Your task to perform on an android device: Search for razer nari on ebay.com, select the first entry, add it to the cart, then select checkout. Image 0: 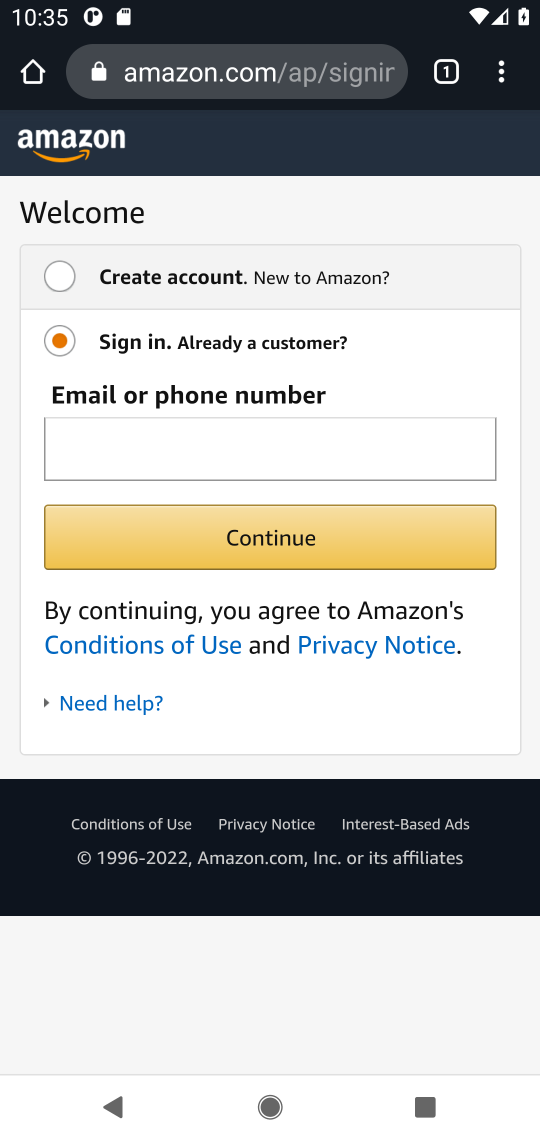
Step 0: press home button
Your task to perform on an android device: Search for razer nari on ebay.com, select the first entry, add it to the cart, then select checkout. Image 1: 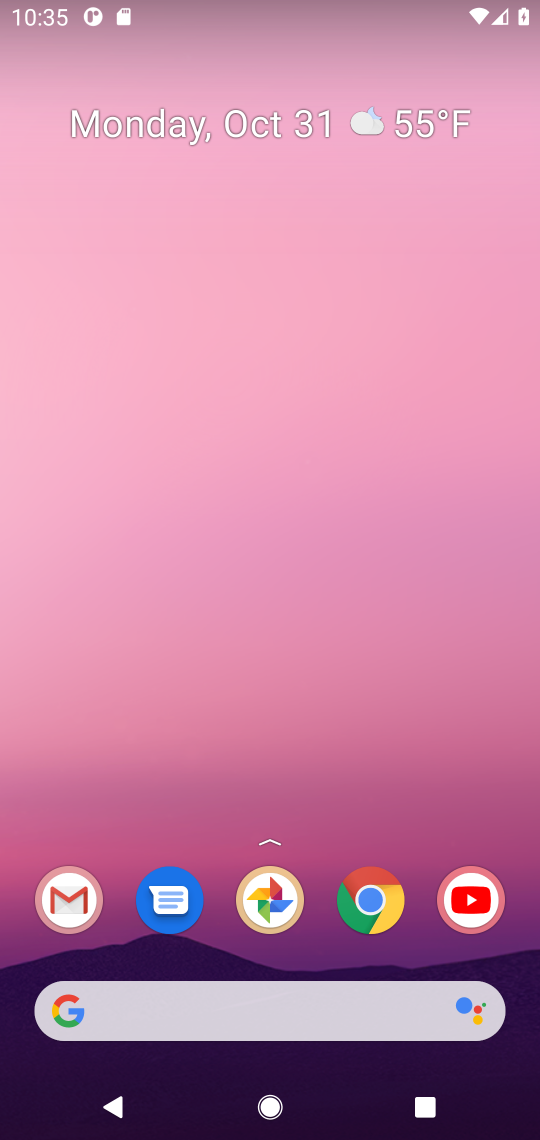
Step 1: click (366, 900)
Your task to perform on an android device: Search for razer nari on ebay.com, select the first entry, add it to the cart, then select checkout. Image 2: 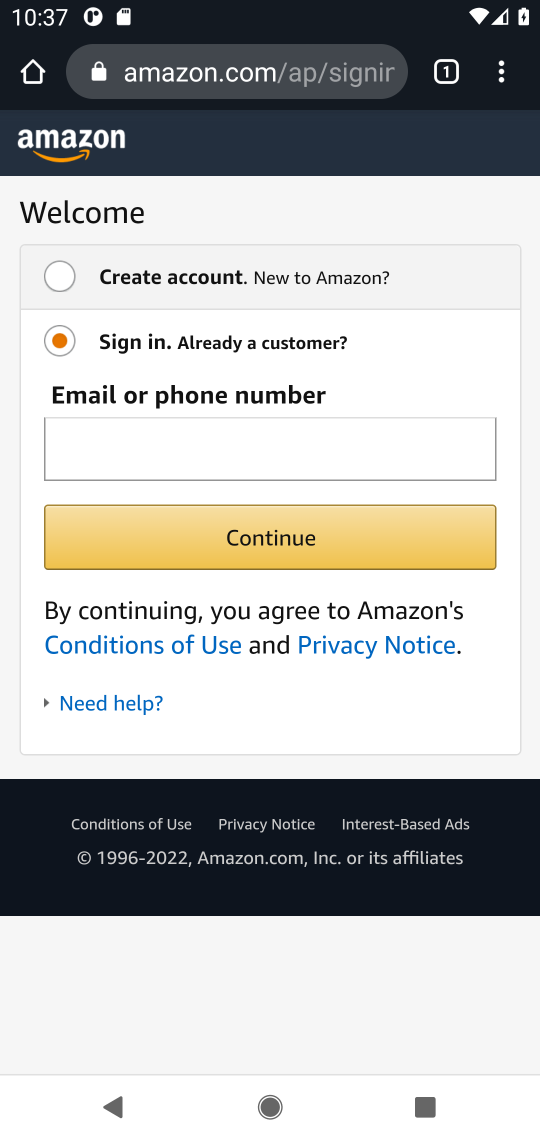
Step 2: click (236, 82)
Your task to perform on an android device: Search for razer nari on ebay.com, select the first entry, add it to the cart, then select checkout. Image 3: 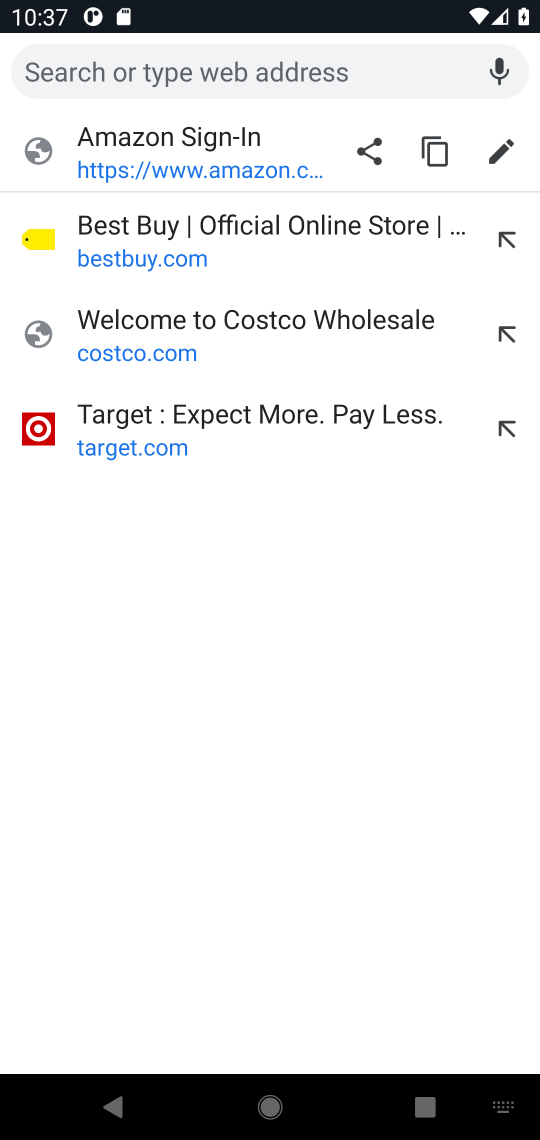
Step 3: type "ebay.com"
Your task to perform on an android device: Search for razer nari on ebay.com, select the first entry, add it to the cart, then select checkout. Image 4: 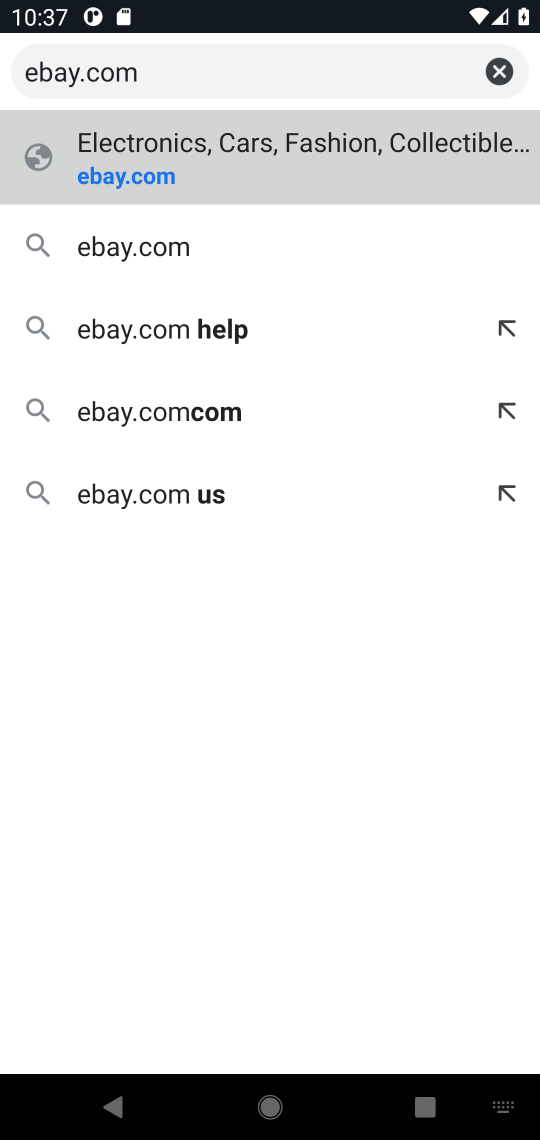
Step 4: click (80, 177)
Your task to perform on an android device: Search for razer nari on ebay.com, select the first entry, add it to the cart, then select checkout. Image 5: 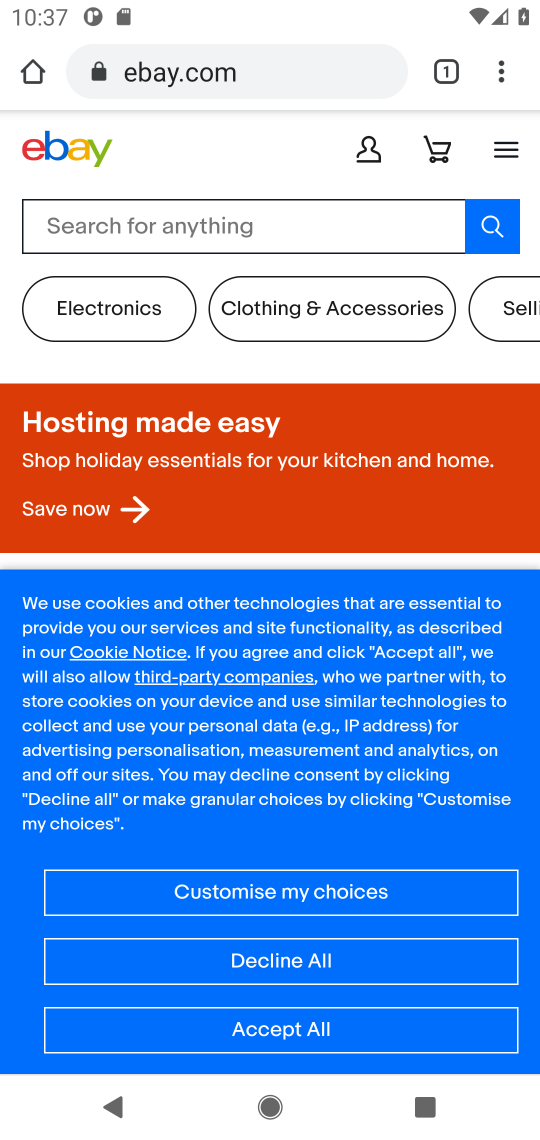
Step 5: click (150, 238)
Your task to perform on an android device: Search for razer nari on ebay.com, select the first entry, add it to the cart, then select checkout. Image 6: 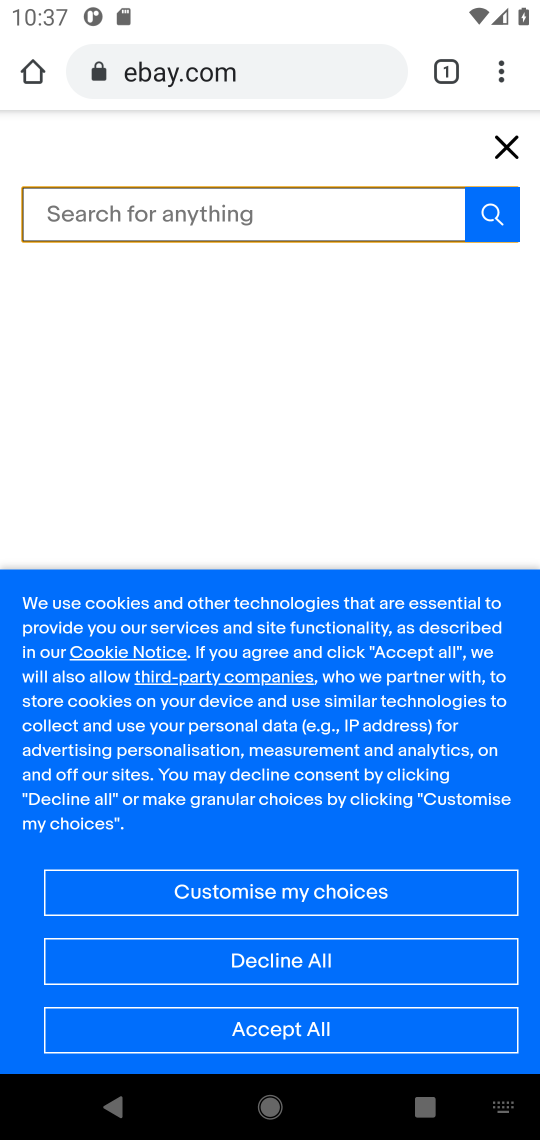
Step 6: type "razer nari "
Your task to perform on an android device: Search for razer nari on ebay.com, select the first entry, add it to the cart, then select checkout. Image 7: 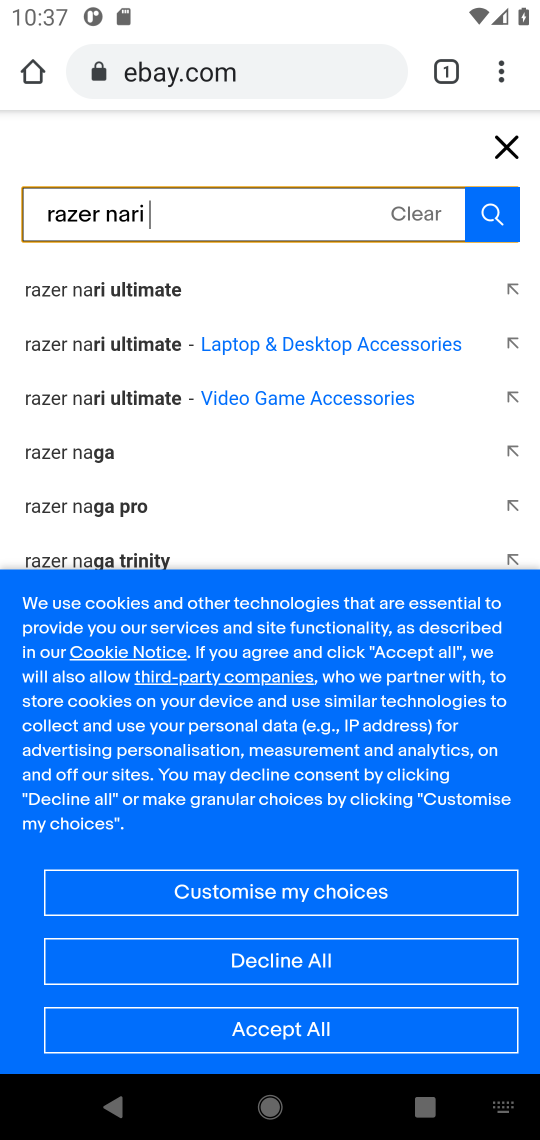
Step 7: click (134, 294)
Your task to perform on an android device: Search for razer nari on ebay.com, select the first entry, add it to the cart, then select checkout. Image 8: 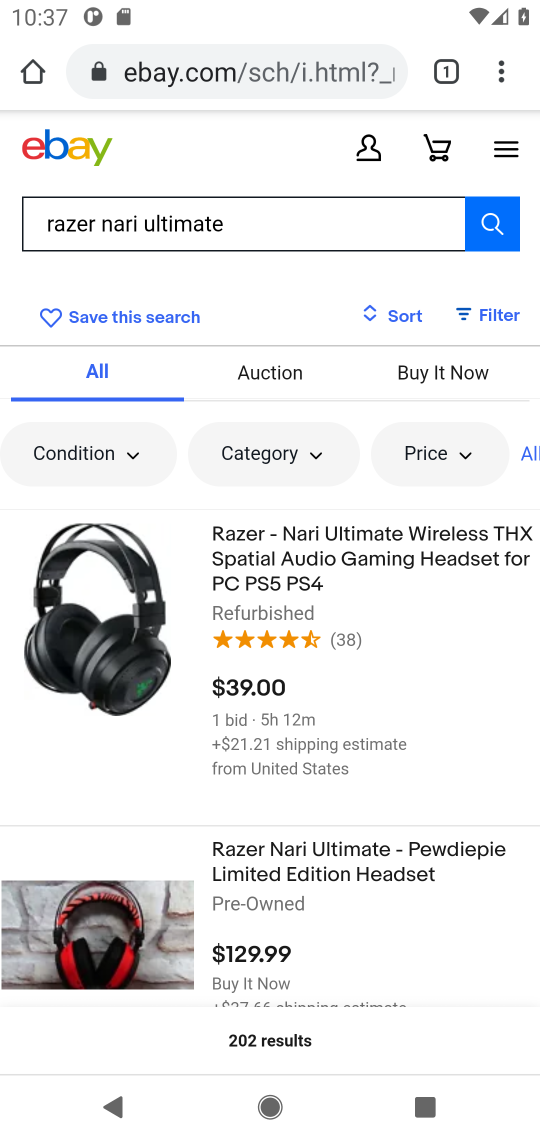
Step 8: click (192, 602)
Your task to perform on an android device: Search for razer nari on ebay.com, select the first entry, add it to the cart, then select checkout. Image 9: 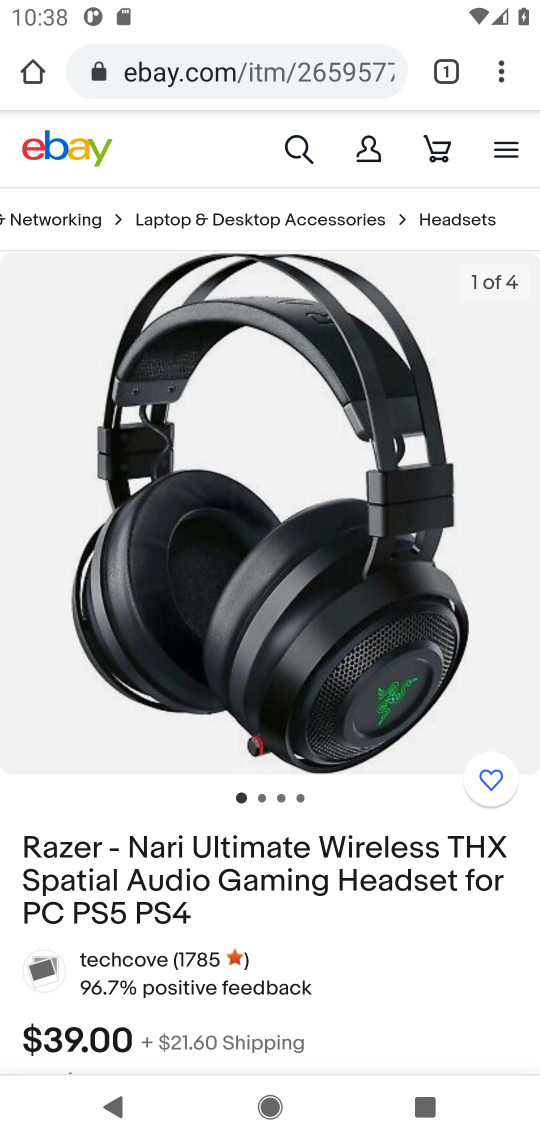
Step 9: drag from (258, 675) to (289, 330)
Your task to perform on an android device: Search for razer nari on ebay.com, select the first entry, add it to the cart, then select checkout. Image 10: 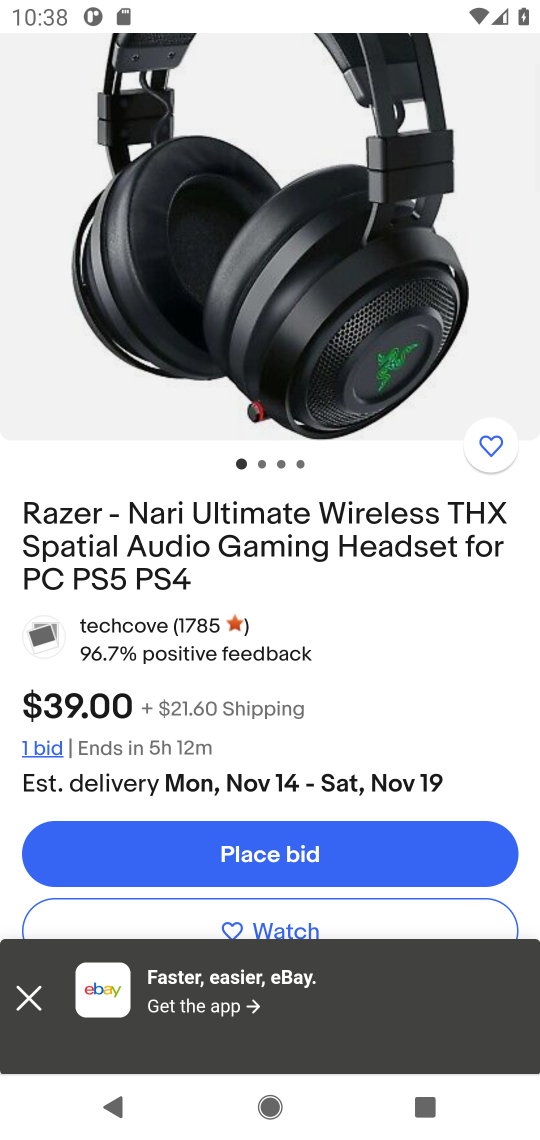
Step 10: drag from (248, 703) to (271, 421)
Your task to perform on an android device: Search for razer nari on ebay.com, select the first entry, add it to the cart, then select checkout. Image 11: 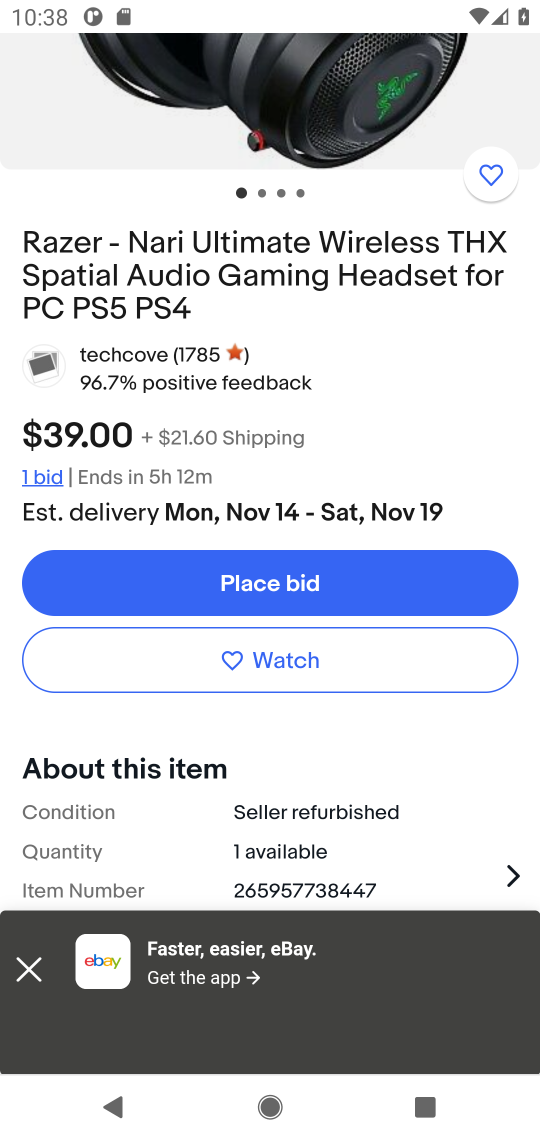
Step 11: drag from (240, 691) to (264, 281)
Your task to perform on an android device: Search for razer nari on ebay.com, select the first entry, add it to the cart, then select checkout. Image 12: 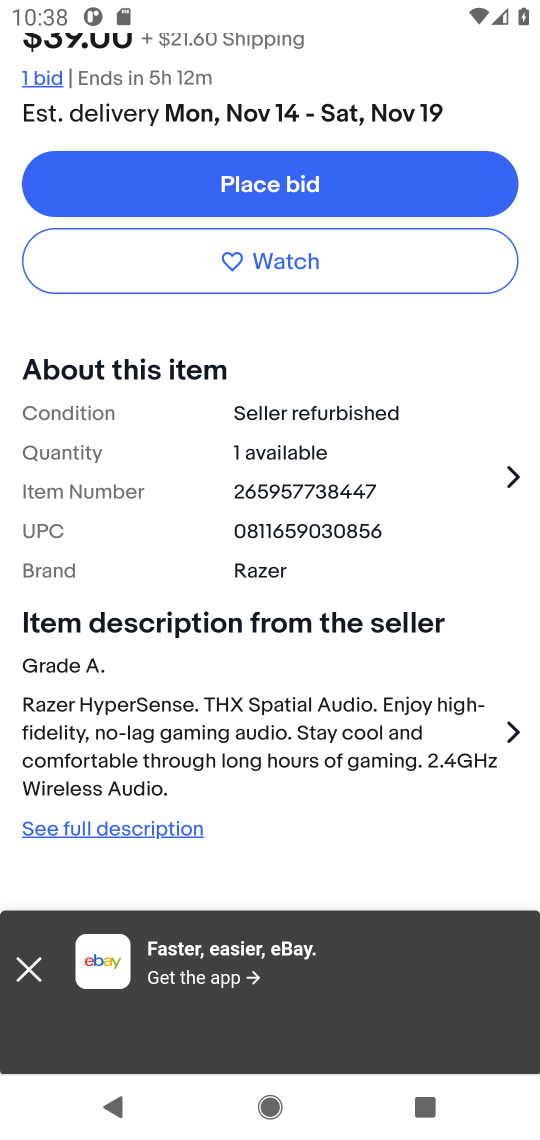
Step 12: drag from (259, 576) to (274, 255)
Your task to perform on an android device: Search for razer nari on ebay.com, select the first entry, add it to the cart, then select checkout. Image 13: 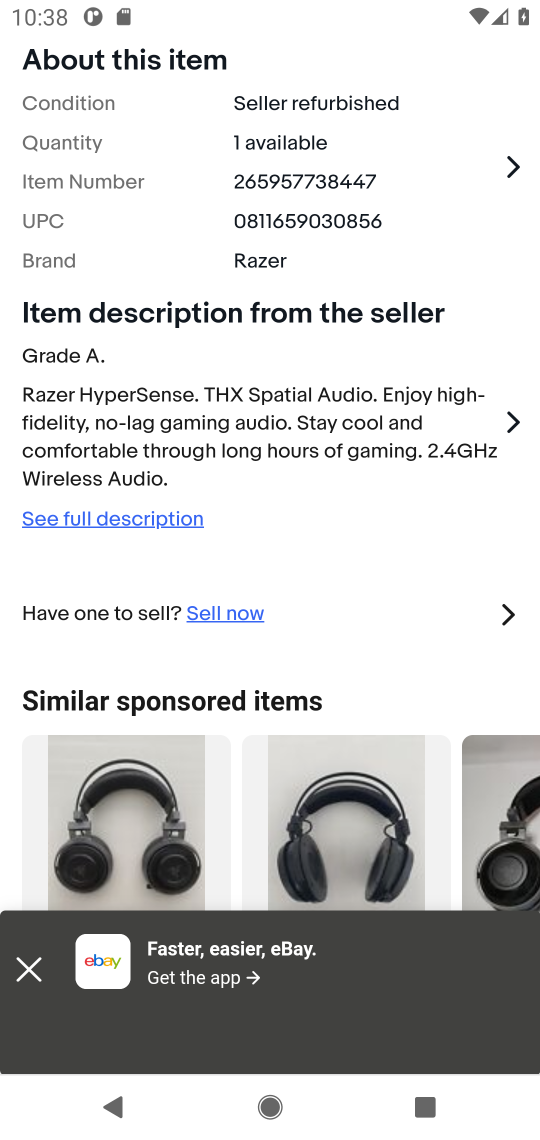
Step 13: drag from (249, 681) to (284, 154)
Your task to perform on an android device: Search for razer nari on ebay.com, select the first entry, add it to the cart, then select checkout. Image 14: 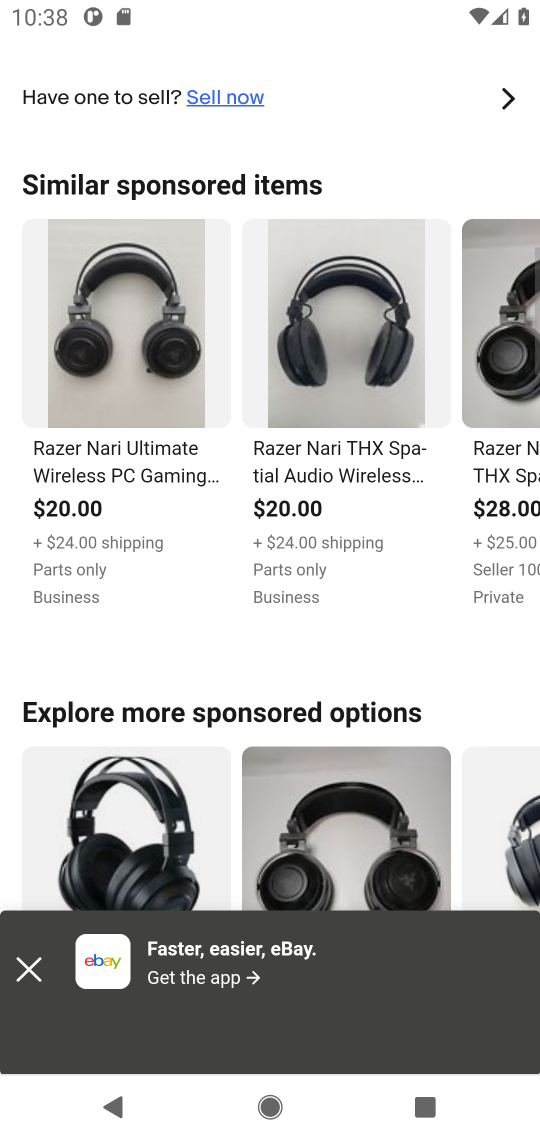
Step 14: drag from (229, 744) to (272, 305)
Your task to perform on an android device: Search for razer nari on ebay.com, select the first entry, add it to the cart, then select checkout. Image 15: 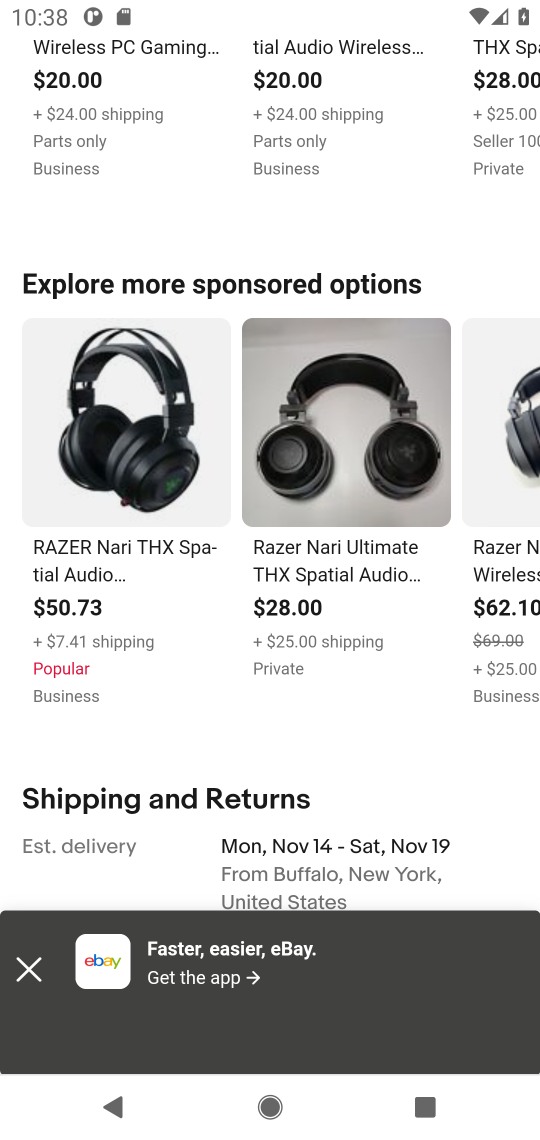
Step 15: drag from (228, 733) to (257, 291)
Your task to perform on an android device: Search for razer nari on ebay.com, select the first entry, add it to the cart, then select checkout. Image 16: 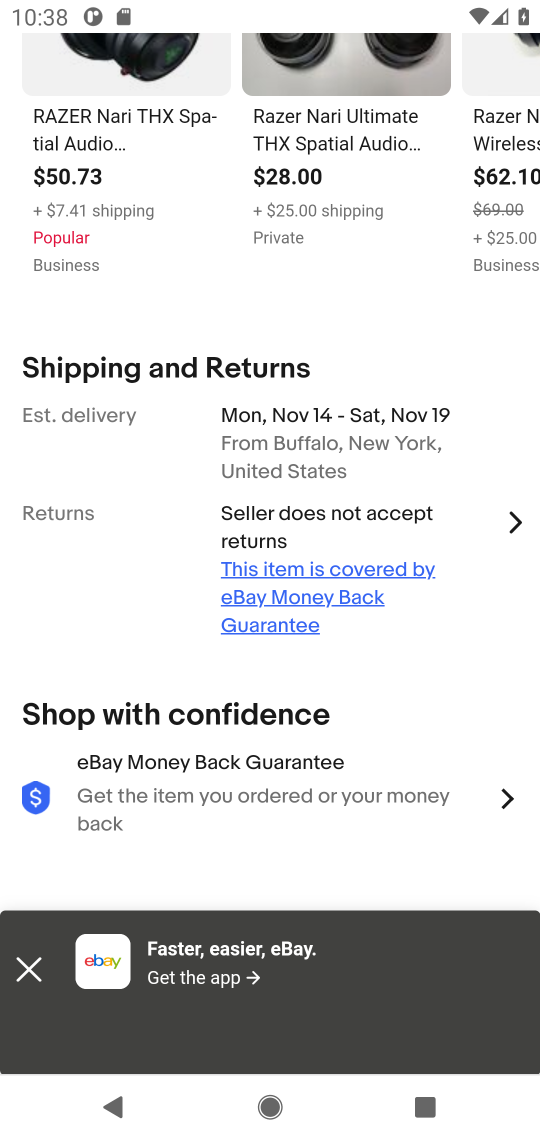
Step 16: drag from (184, 717) to (204, 379)
Your task to perform on an android device: Search for razer nari on ebay.com, select the first entry, add it to the cart, then select checkout. Image 17: 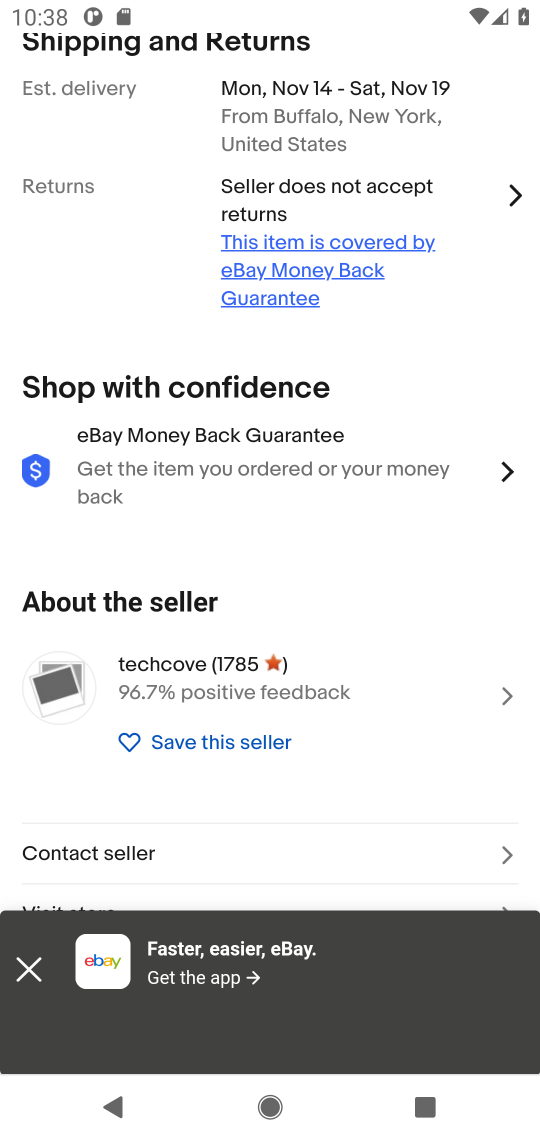
Step 17: drag from (184, 714) to (199, 367)
Your task to perform on an android device: Search for razer nari on ebay.com, select the first entry, add it to the cart, then select checkout. Image 18: 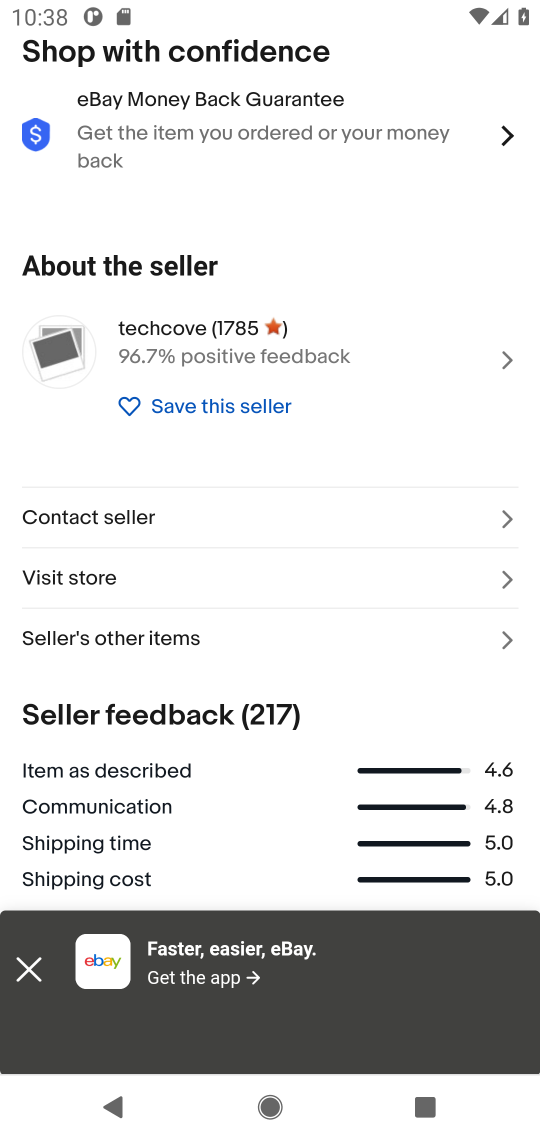
Step 18: drag from (214, 247) to (209, 956)
Your task to perform on an android device: Search for razer nari on ebay.com, select the first entry, add it to the cart, then select checkout. Image 19: 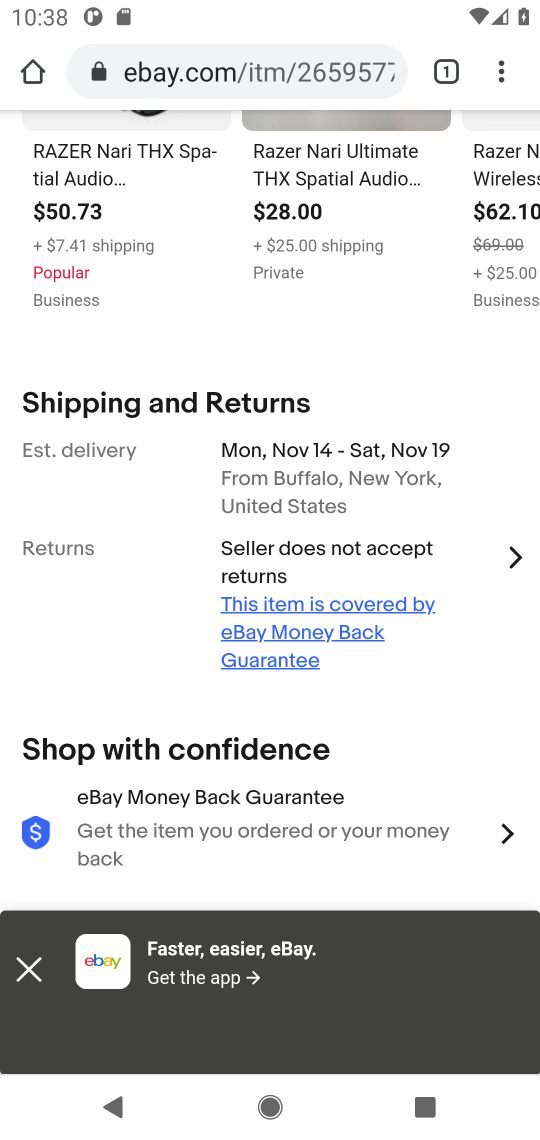
Step 19: drag from (230, 392) to (199, 974)
Your task to perform on an android device: Search for razer nari on ebay.com, select the first entry, add it to the cart, then select checkout. Image 20: 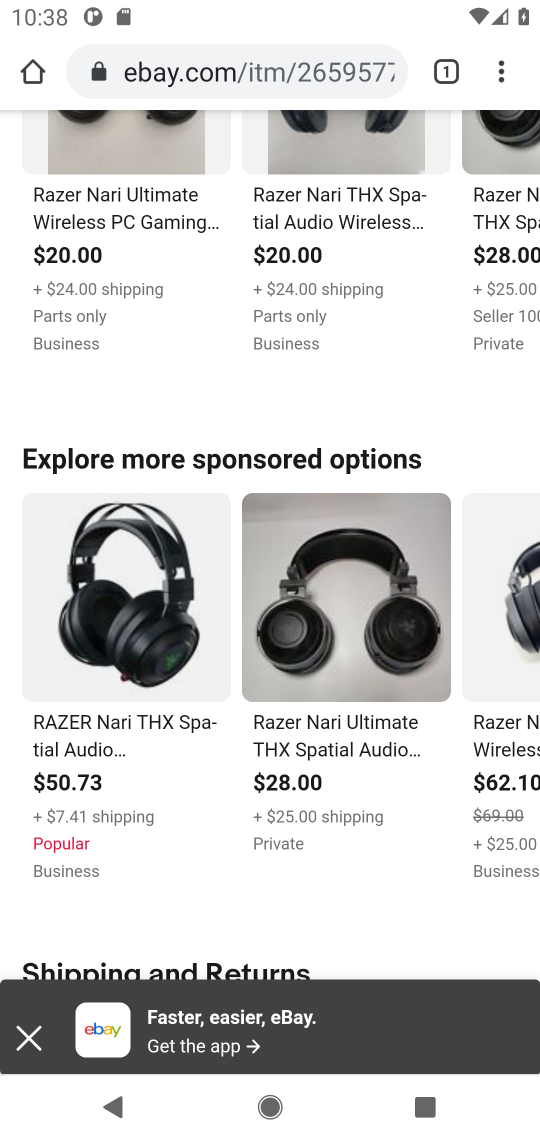
Step 20: drag from (238, 402) to (238, 936)
Your task to perform on an android device: Search for razer nari on ebay.com, select the first entry, add it to the cart, then select checkout. Image 21: 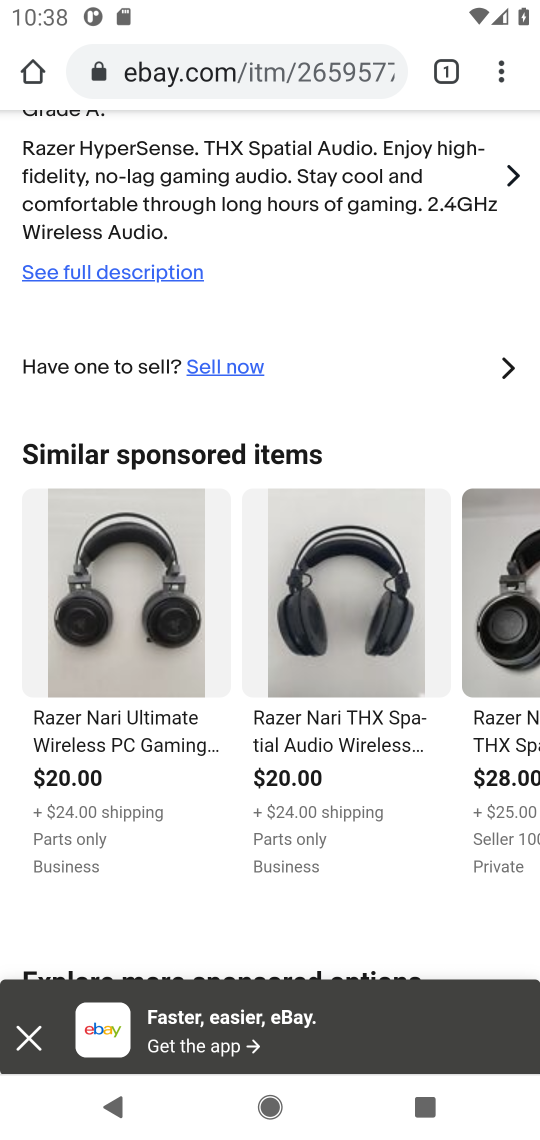
Step 21: drag from (282, 286) to (284, 797)
Your task to perform on an android device: Search for razer nari on ebay.com, select the first entry, add it to the cart, then select checkout. Image 22: 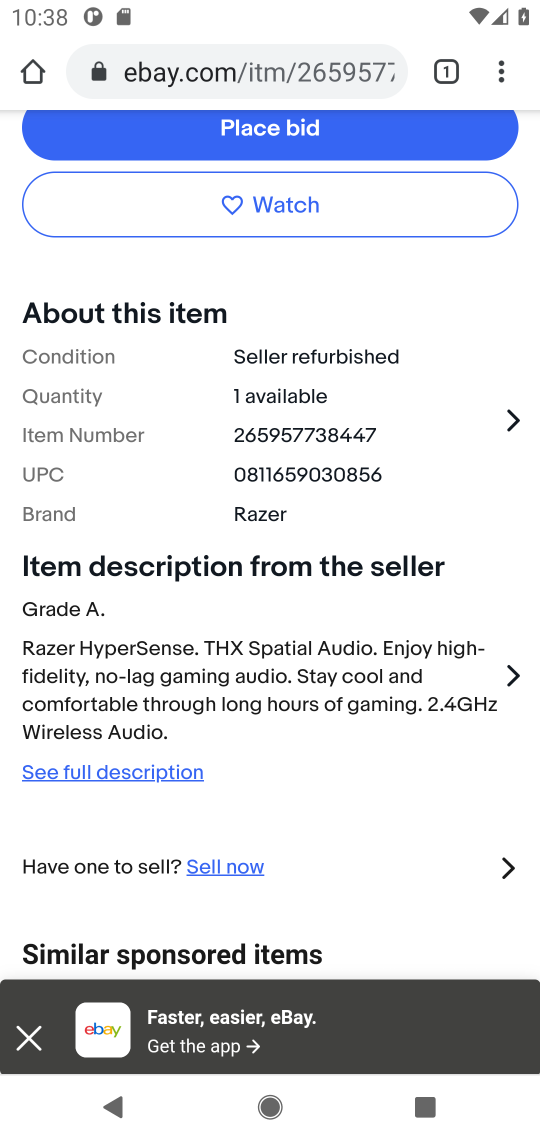
Step 22: drag from (233, 374) to (239, 785)
Your task to perform on an android device: Search for razer nari on ebay.com, select the first entry, add it to the cart, then select checkout. Image 23: 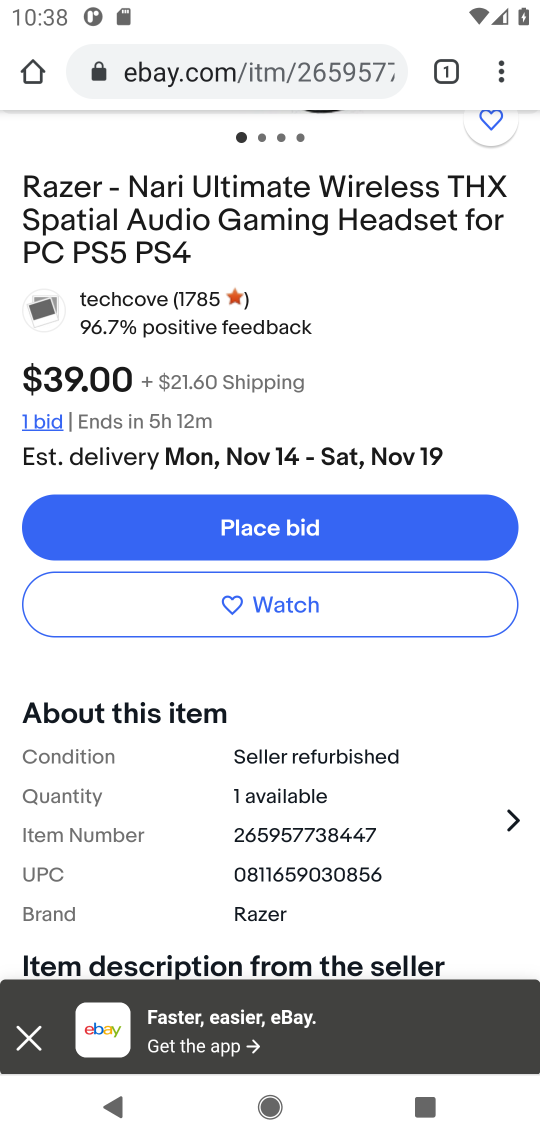
Step 23: drag from (236, 318) to (254, 856)
Your task to perform on an android device: Search for razer nari on ebay.com, select the first entry, add it to the cart, then select checkout. Image 24: 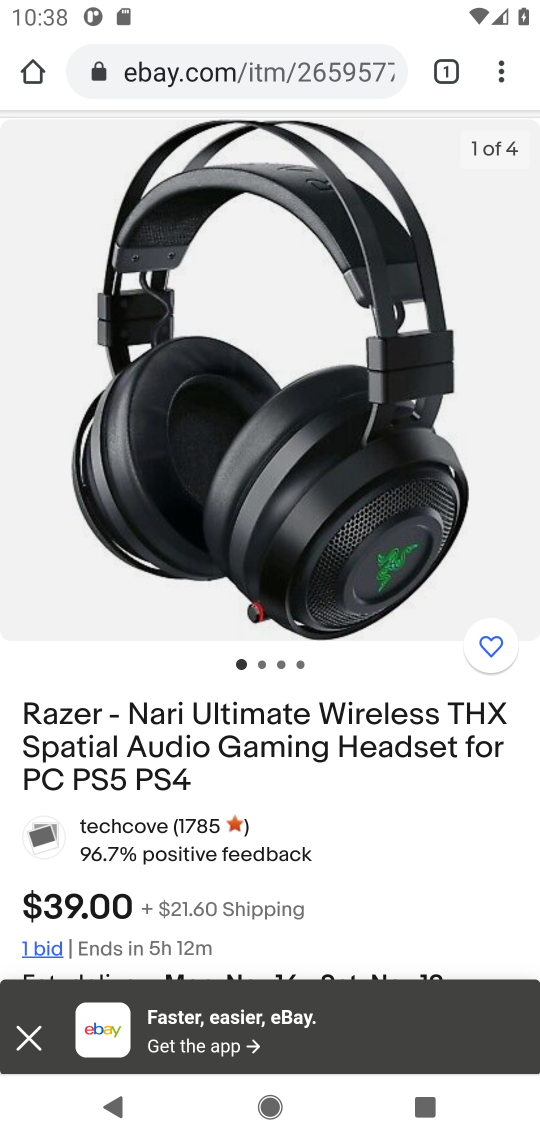
Step 24: drag from (263, 447) to (255, 861)
Your task to perform on an android device: Search for razer nari on ebay.com, select the first entry, add it to the cart, then select checkout. Image 25: 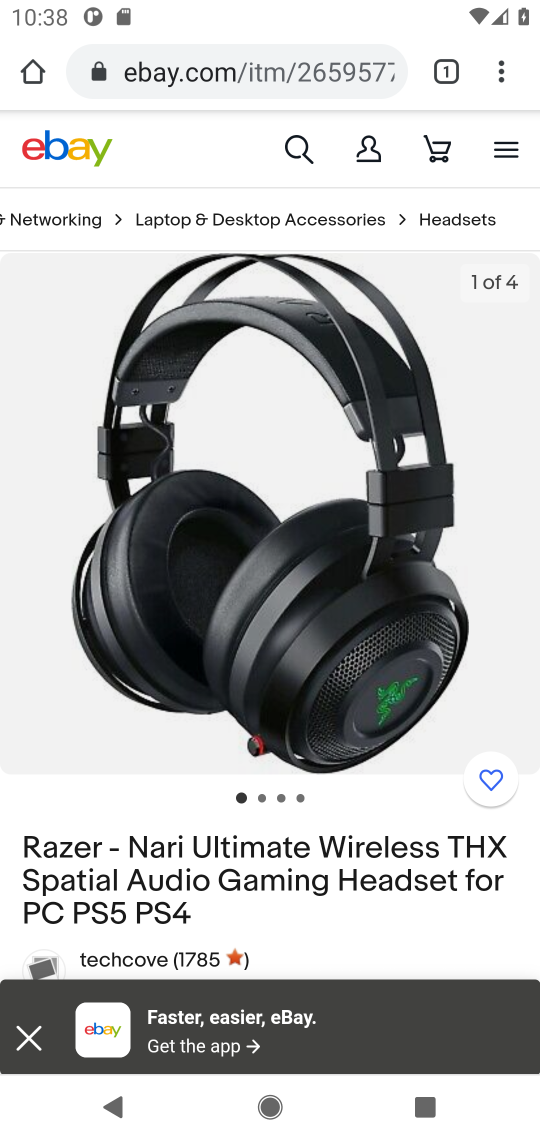
Step 25: press back button
Your task to perform on an android device: Search for razer nari on ebay.com, select the first entry, add it to the cart, then select checkout. Image 26: 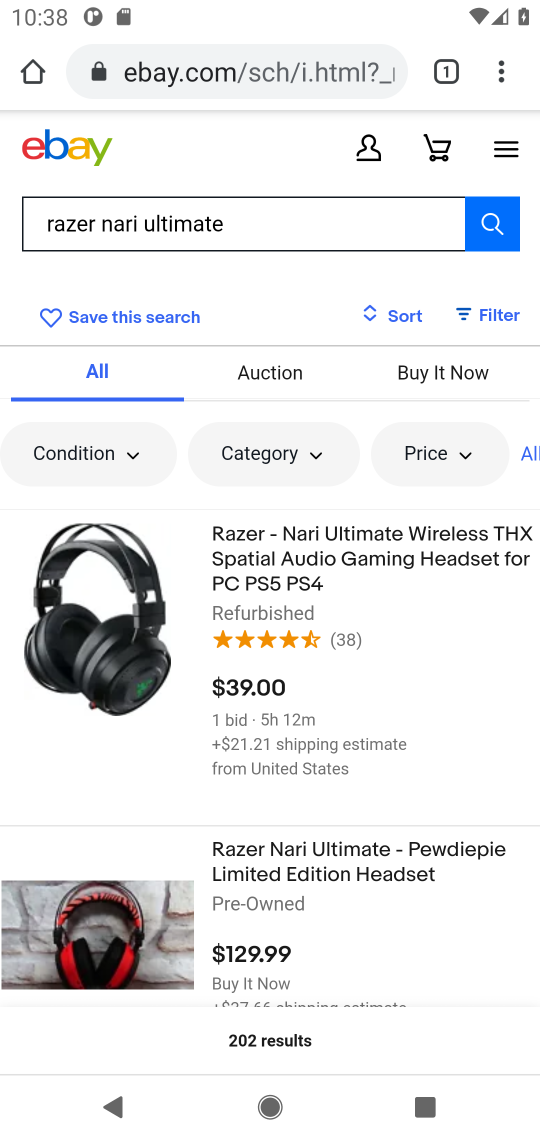
Step 26: click (121, 922)
Your task to perform on an android device: Search for razer nari on ebay.com, select the first entry, add it to the cart, then select checkout. Image 27: 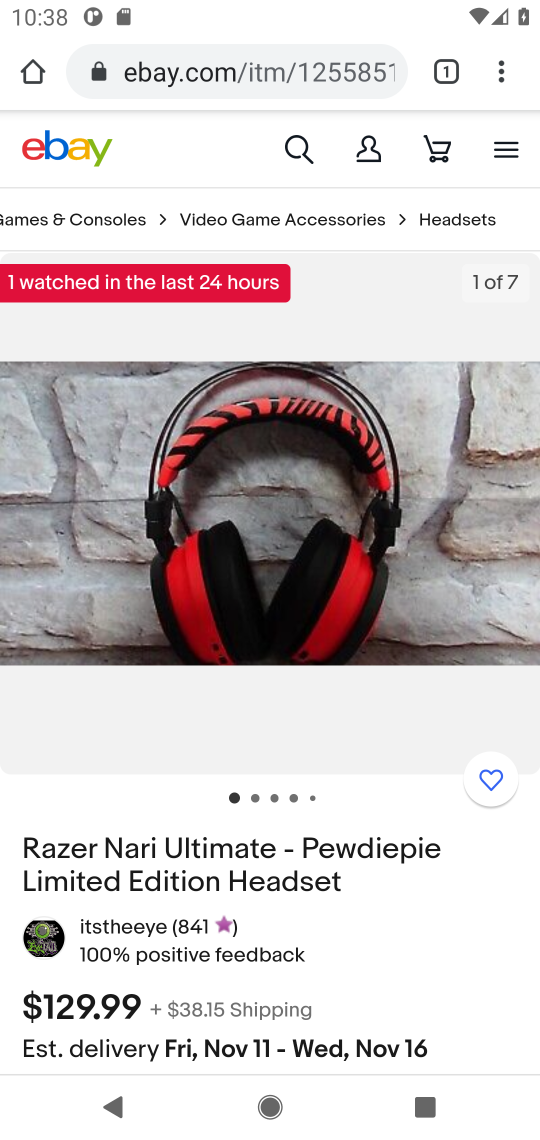
Step 27: task complete